Your task to perform on an android device: open chrome and create a bookmark for the current page Image 0: 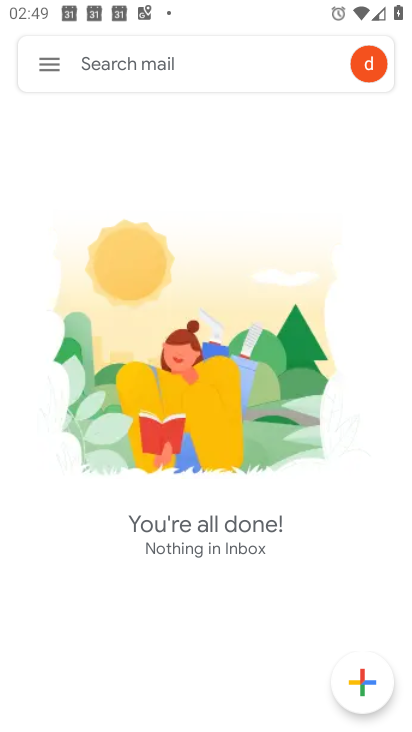
Step 0: press home button
Your task to perform on an android device: open chrome and create a bookmark for the current page Image 1: 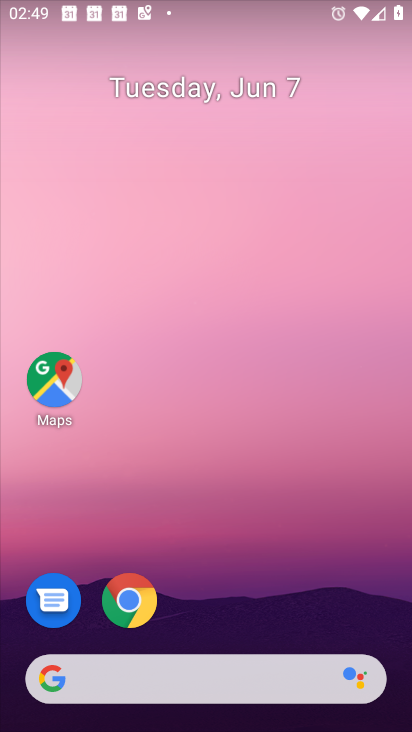
Step 1: click (133, 605)
Your task to perform on an android device: open chrome and create a bookmark for the current page Image 2: 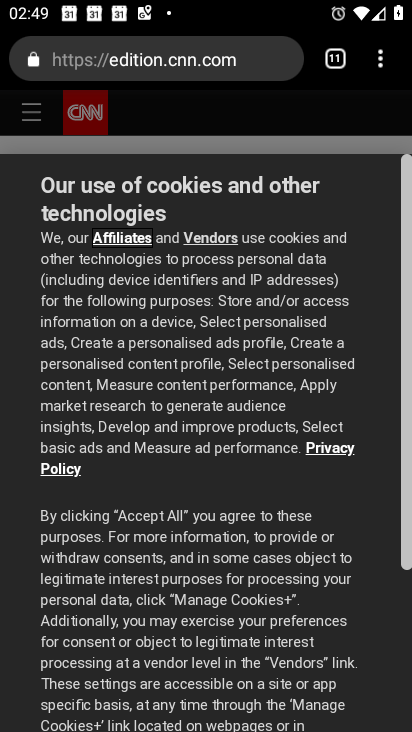
Step 2: click (382, 71)
Your task to perform on an android device: open chrome and create a bookmark for the current page Image 3: 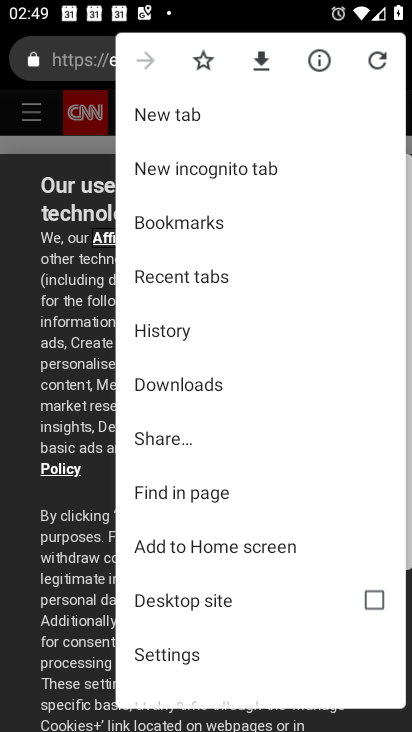
Step 3: drag from (208, 639) to (212, 291)
Your task to perform on an android device: open chrome and create a bookmark for the current page Image 4: 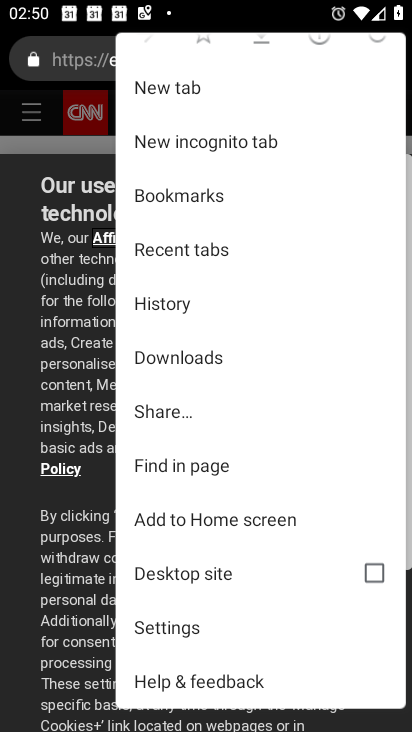
Step 4: drag from (274, 110) to (286, 414)
Your task to perform on an android device: open chrome and create a bookmark for the current page Image 5: 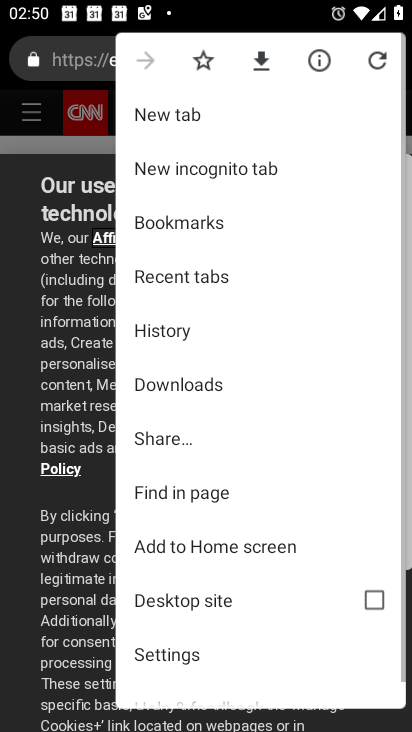
Step 5: click (207, 57)
Your task to perform on an android device: open chrome and create a bookmark for the current page Image 6: 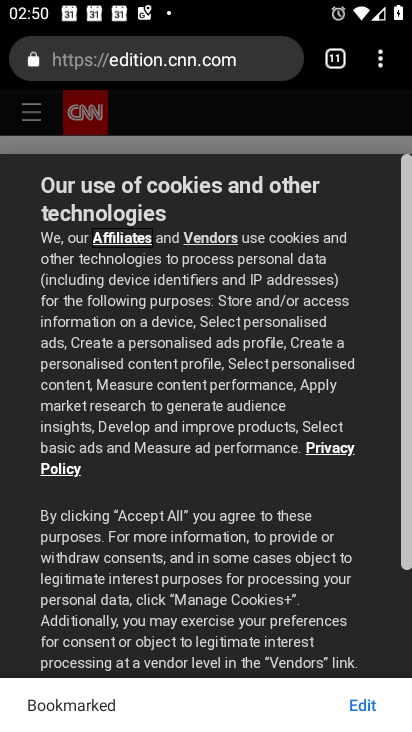
Step 6: task complete